Your task to perform on an android device: Is it going to rain tomorrow? Image 0: 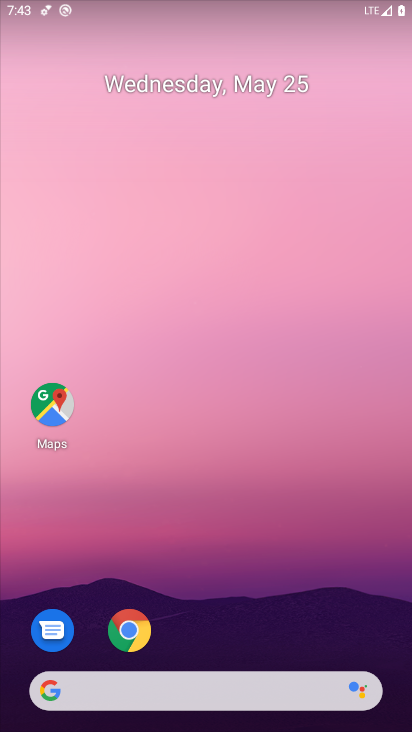
Step 0: drag from (195, 677) to (274, 313)
Your task to perform on an android device: Is it going to rain tomorrow? Image 1: 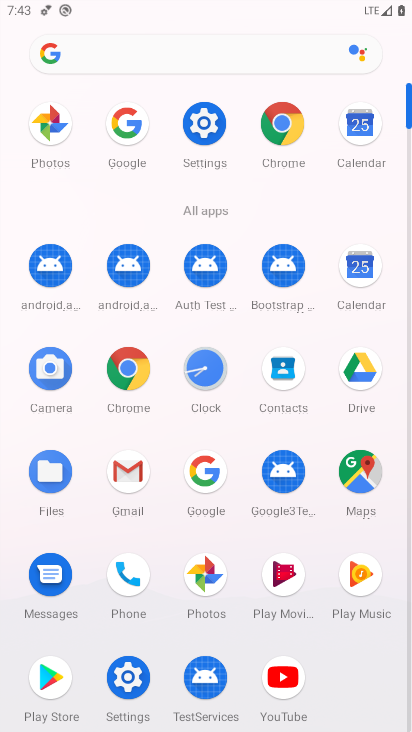
Step 1: click (133, 118)
Your task to perform on an android device: Is it going to rain tomorrow? Image 2: 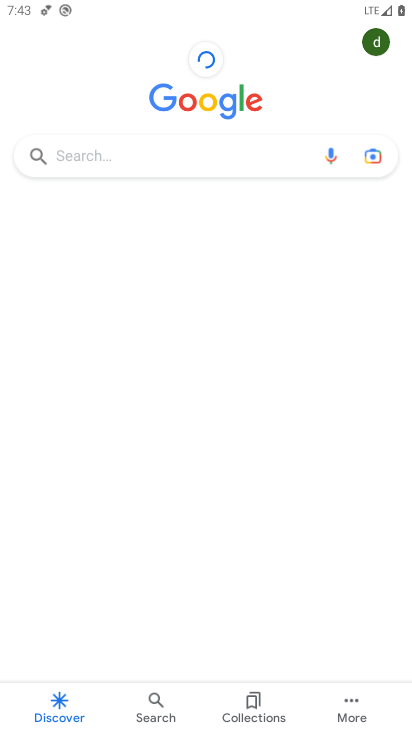
Step 2: click (104, 156)
Your task to perform on an android device: Is it going to rain tomorrow? Image 3: 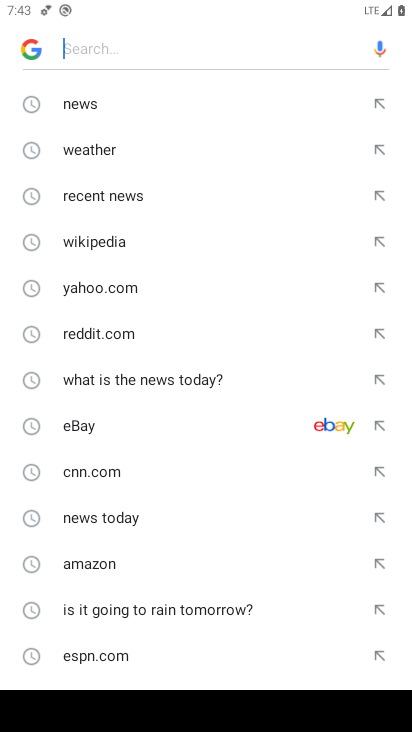
Step 3: click (96, 611)
Your task to perform on an android device: Is it going to rain tomorrow? Image 4: 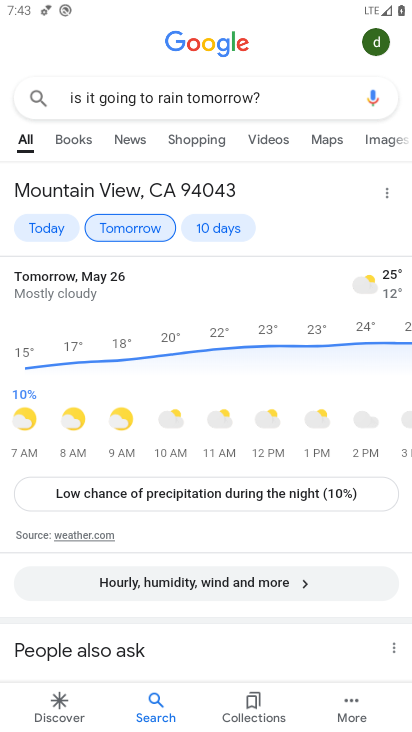
Step 4: click (159, 581)
Your task to perform on an android device: Is it going to rain tomorrow? Image 5: 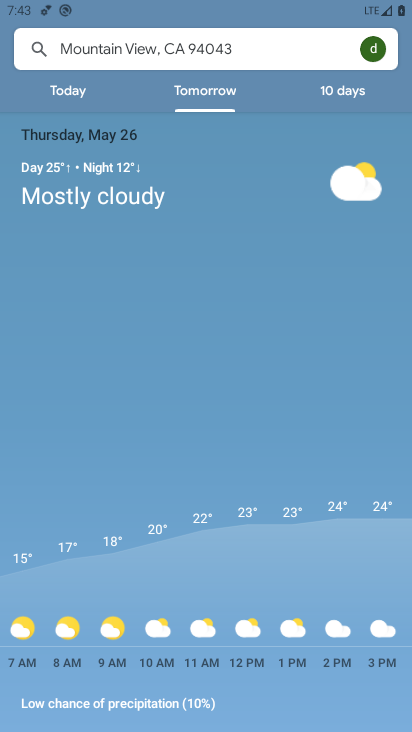
Step 5: task complete